Your task to perform on an android device: Search for amazon basics triple a on newegg, select the first entry, add it to the cart, then select checkout. Image 0: 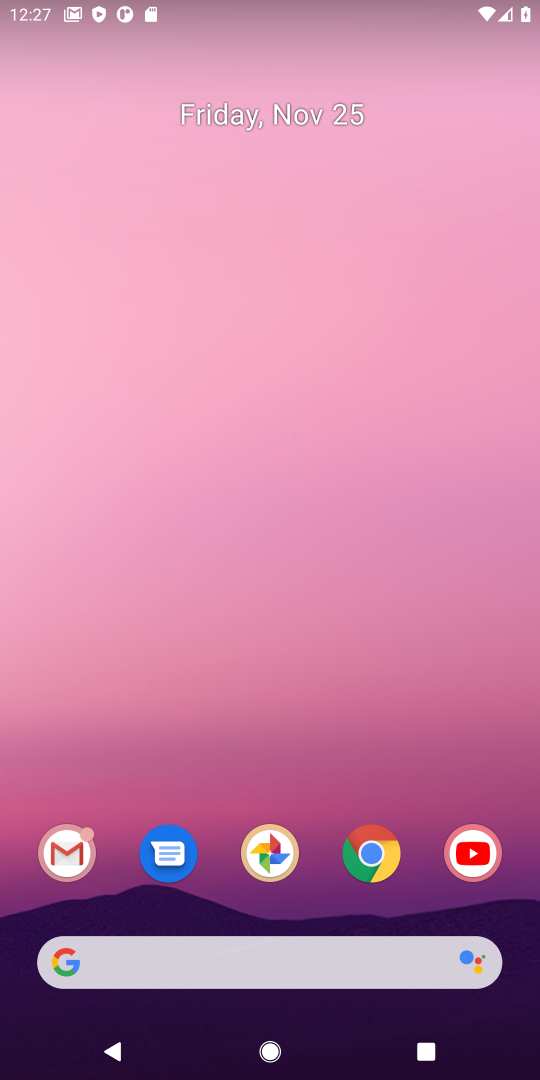
Step 0: click (291, 954)
Your task to perform on an android device: Search for amazon basics triple a on newegg, select the first entry, add it to the cart, then select checkout. Image 1: 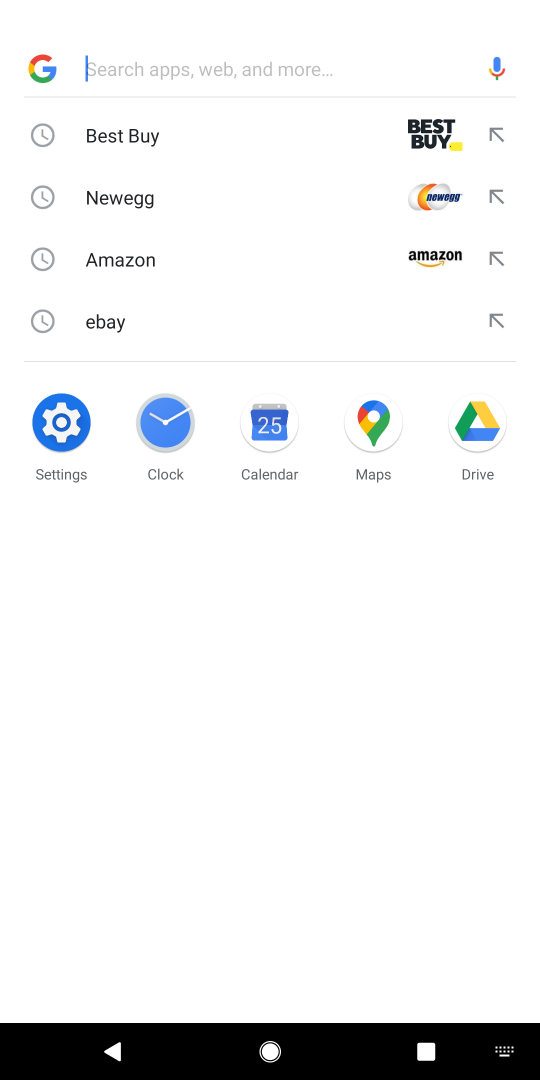
Step 1: click (224, 213)
Your task to perform on an android device: Search for amazon basics triple a on newegg, select the first entry, add it to the cart, then select checkout. Image 2: 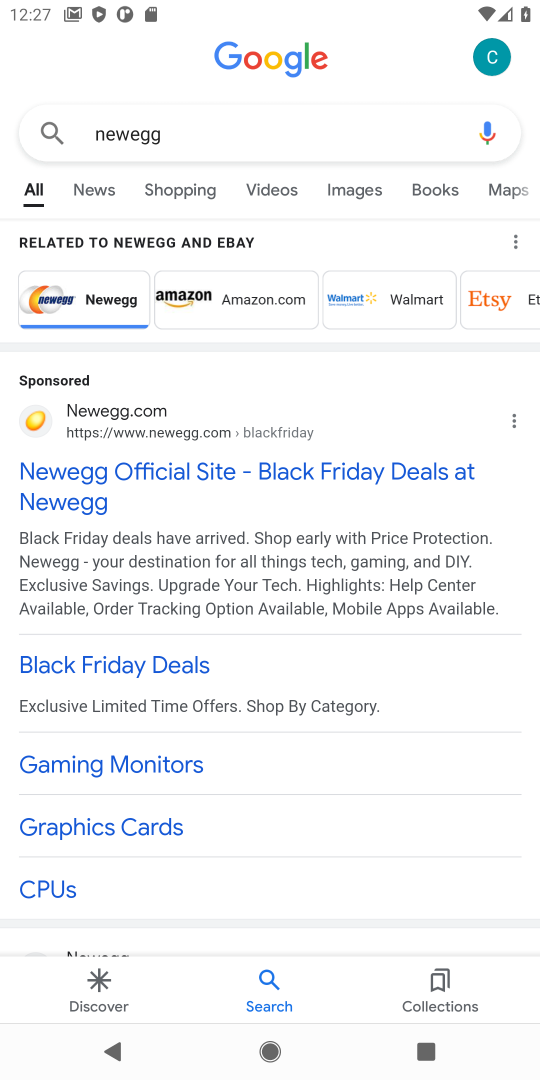
Step 2: click (192, 455)
Your task to perform on an android device: Search for amazon basics triple a on newegg, select the first entry, add it to the cart, then select checkout. Image 3: 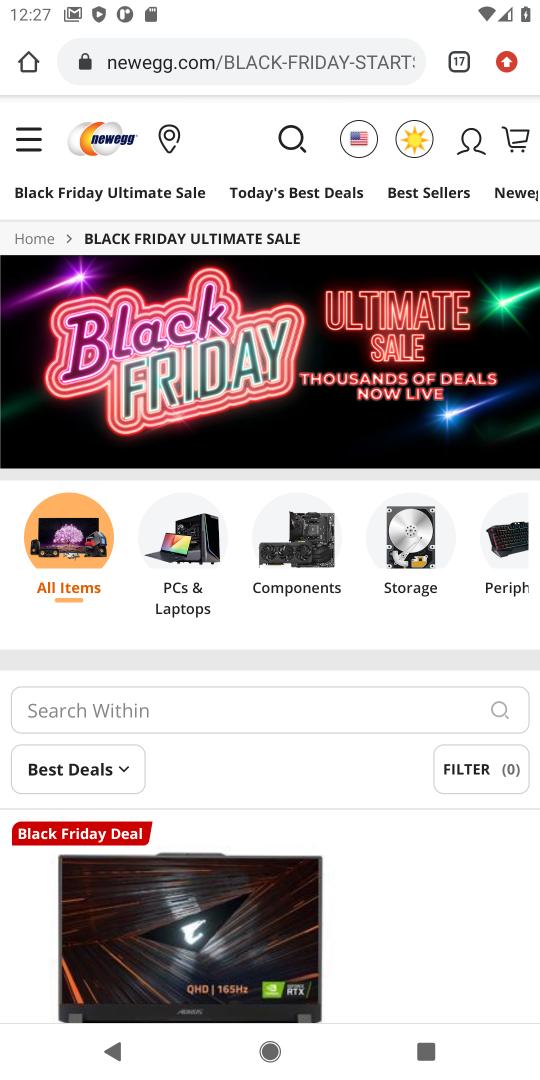
Step 3: click (367, 143)
Your task to perform on an android device: Search for amazon basics triple a on newegg, select the first entry, add it to the cart, then select checkout. Image 4: 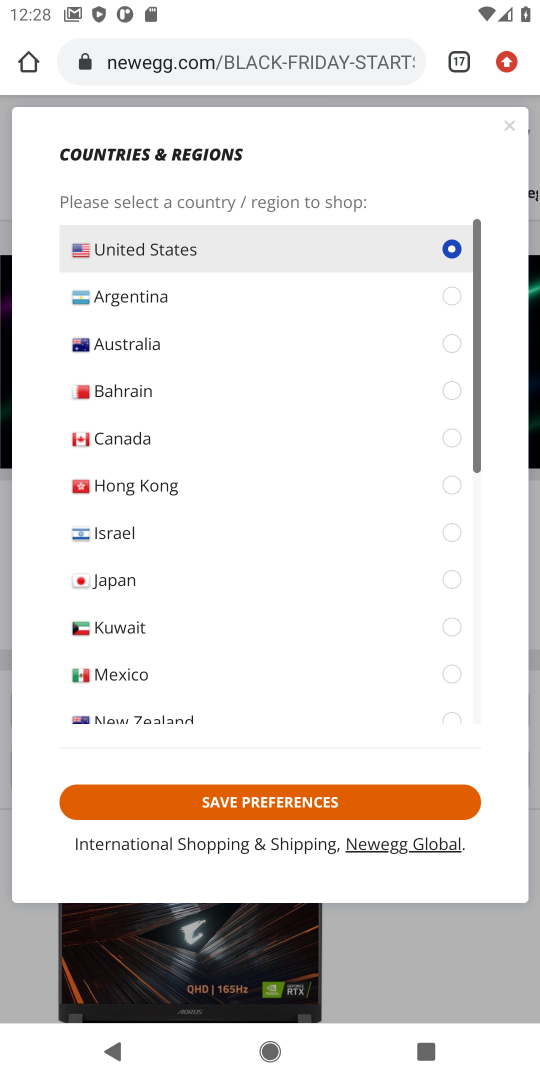
Step 4: type "amazon basic triple"
Your task to perform on an android device: Search for amazon basics triple a on newegg, select the first entry, add it to the cart, then select checkout. Image 5: 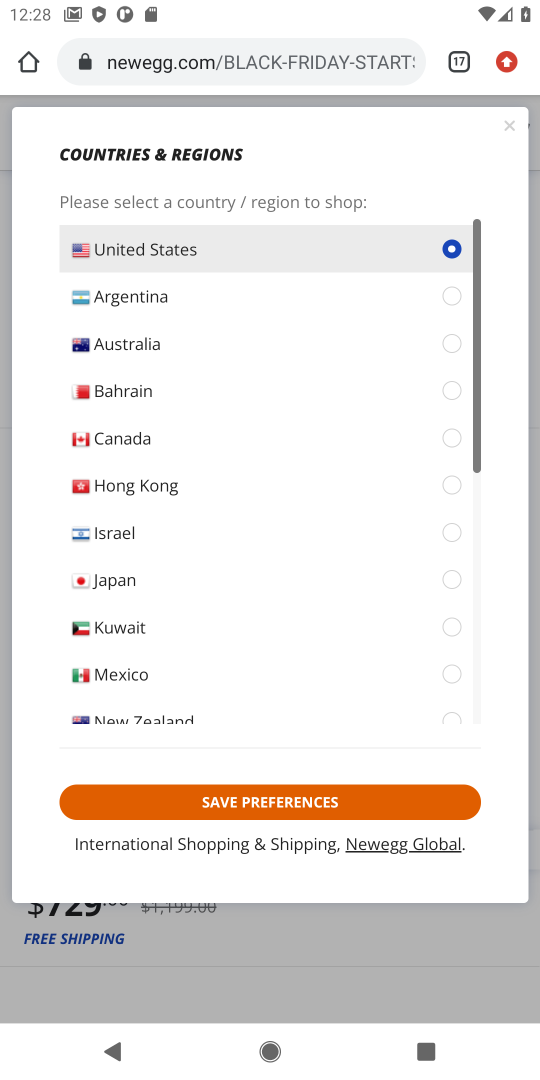
Step 5: click (421, 793)
Your task to perform on an android device: Search for amazon basics triple a on newegg, select the first entry, add it to the cart, then select checkout. Image 6: 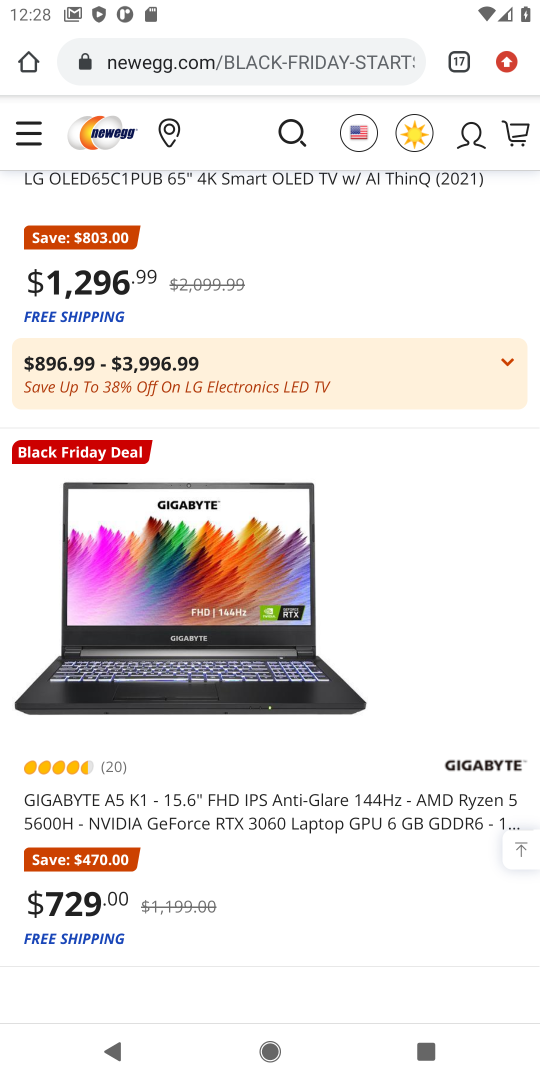
Step 6: click (357, 760)
Your task to perform on an android device: Search for amazon basics triple a on newegg, select the first entry, add it to the cart, then select checkout. Image 7: 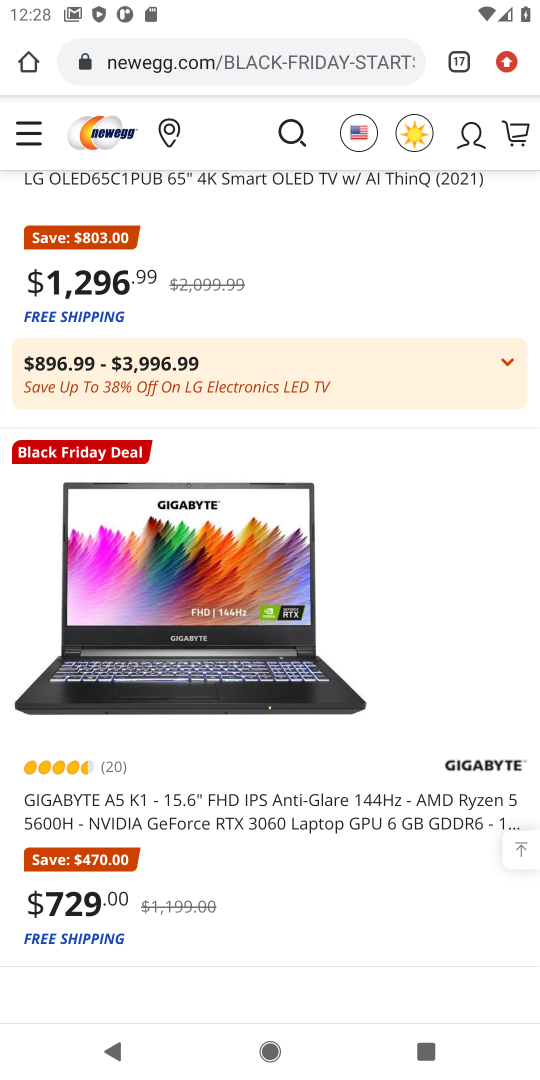
Step 7: drag from (302, 863) to (218, 483)
Your task to perform on an android device: Search for amazon basics triple a on newegg, select the first entry, add it to the cart, then select checkout. Image 8: 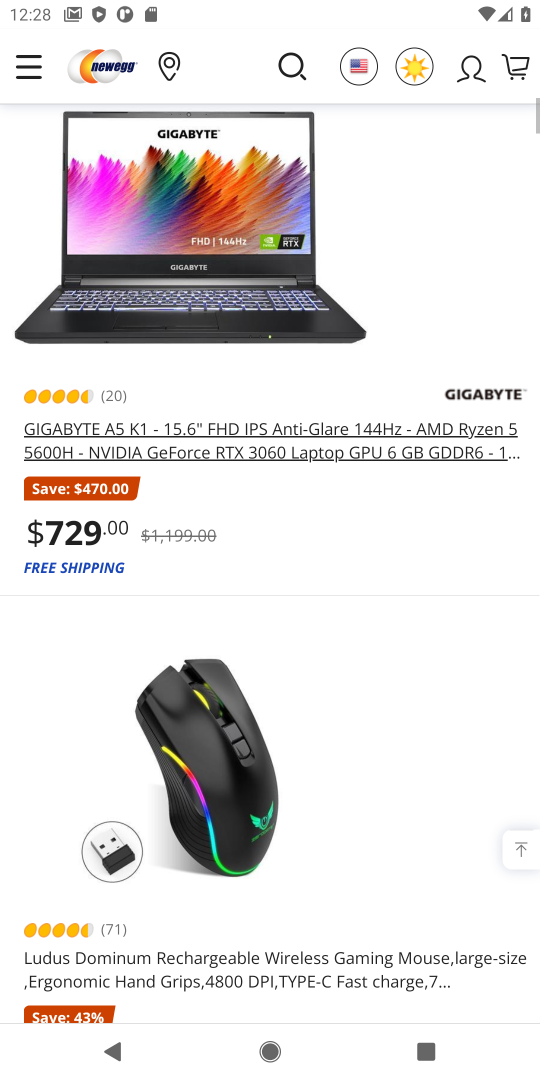
Step 8: click (218, 483)
Your task to perform on an android device: Search for amazon basics triple a on newegg, select the first entry, add it to the cart, then select checkout. Image 9: 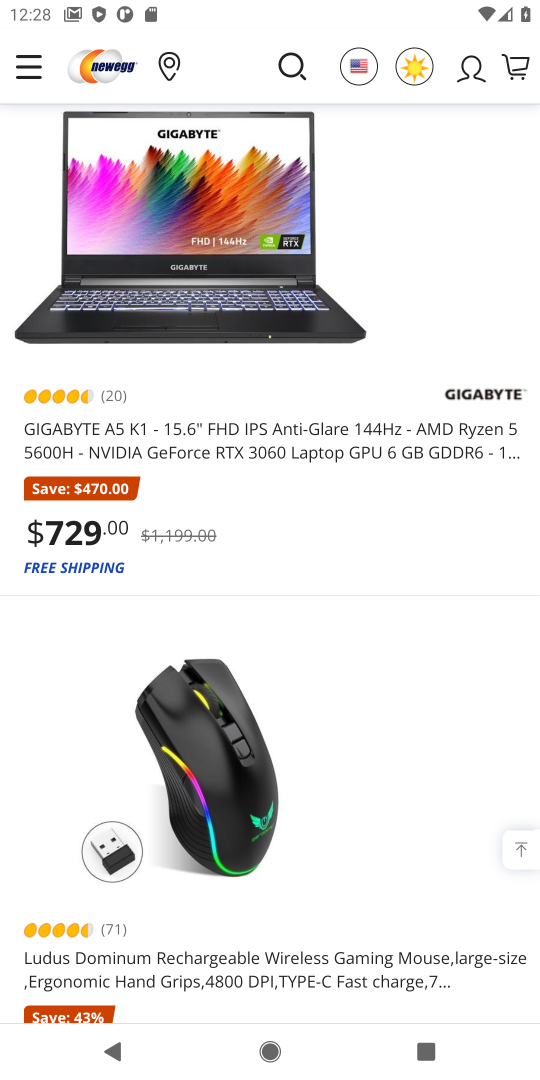
Step 9: click (161, 383)
Your task to perform on an android device: Search for amazon basics triple a on newegg, select the first entry, add it to the cart, then select checkout. Image 10: 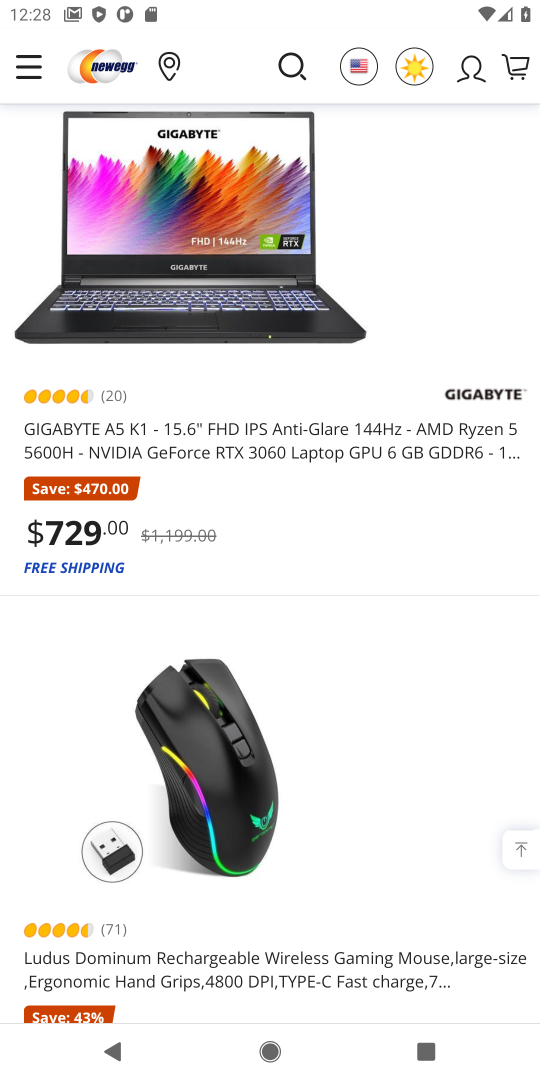
Step 10: click (152, 364)
Your task to perform on an android device: Search for amazon basics triple a on newegg, select the first entry, add it to the cart, then select checkout. Image 11: 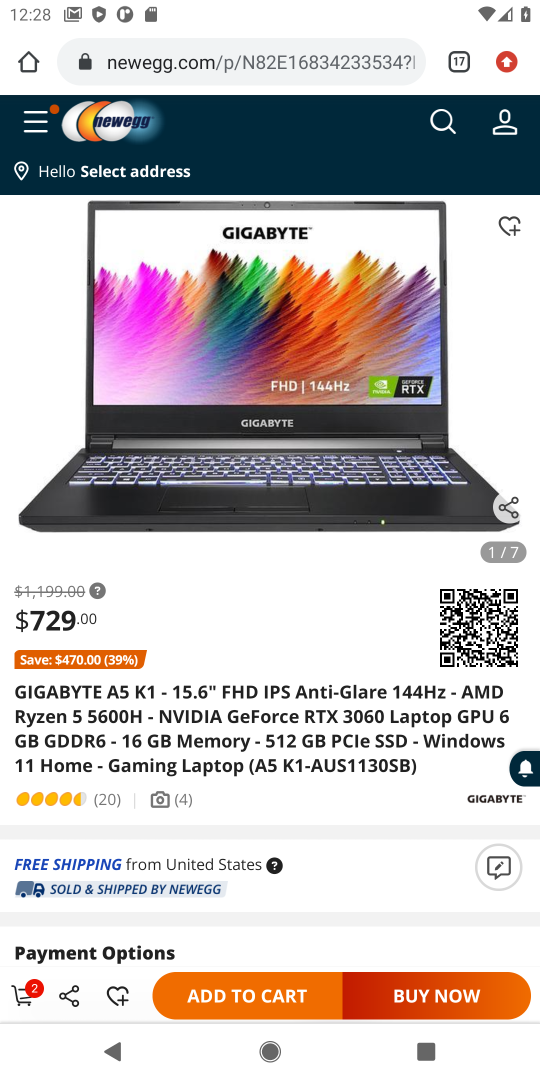
Step 11: click (276, 987)
Your task to perform on an android device: Search for amazon basics triple a on newegg, select the first entry, add it to the cart, then select checkout. Image 12: 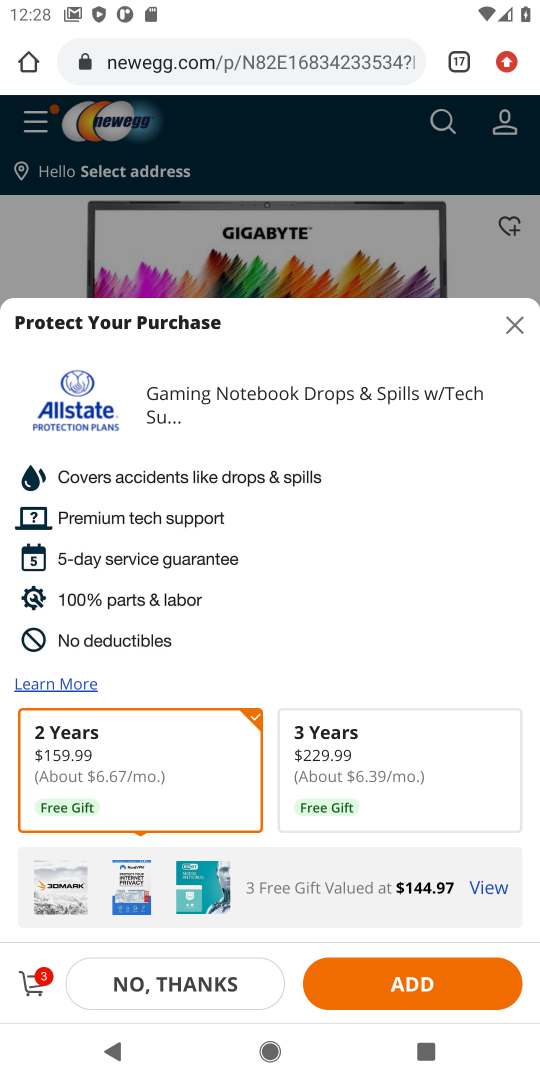
Step 12: task complete